Your task to perform on an android device: What's the weather going to be tomorrow? Image 0: 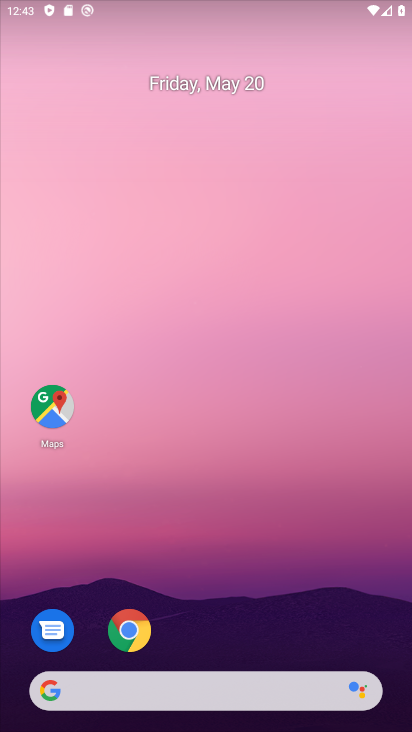
Step 0: press home button
Your task to perform on an android device: What's the weather going to be tomorrow? Image 1: 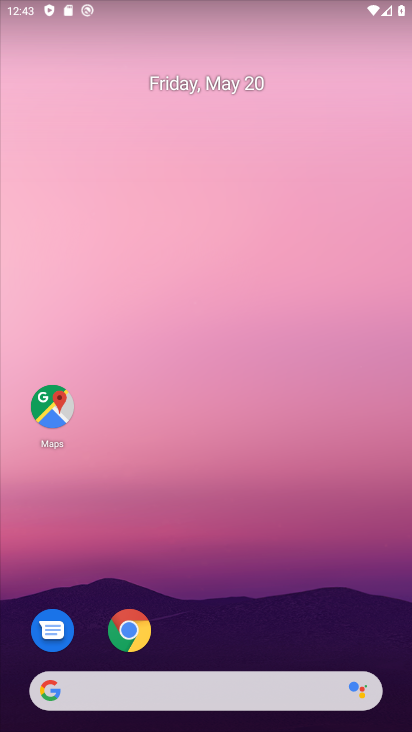
Step 1: drag from (253, 715) to (235, 258)
Your task to perform on an android device: What's the weather going to be tomorrow? Image 2: 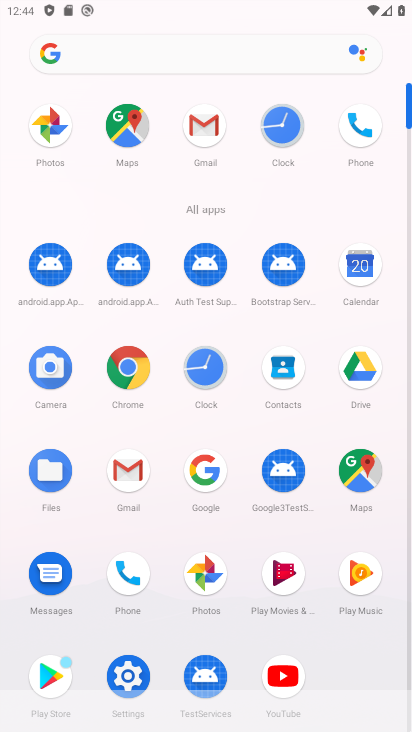
Step 2: click (170, 58)
Your task to perform on an android device: What's the weather going to be tomorrow? Image 3: 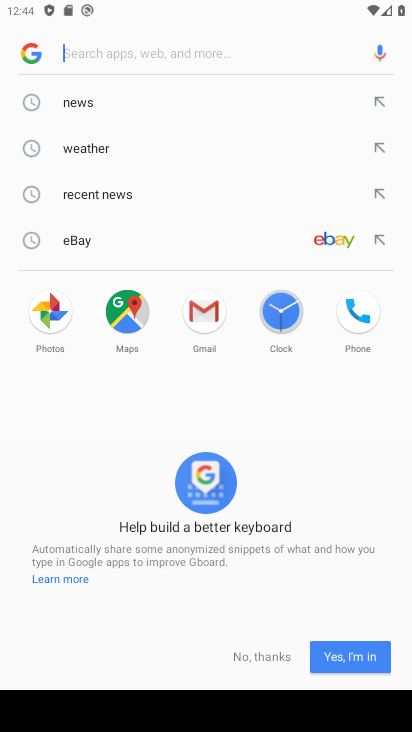
Step 3: click (258, 652)
Your task to perform on an android device: What's the weather going to be tomorrow? Image 4: 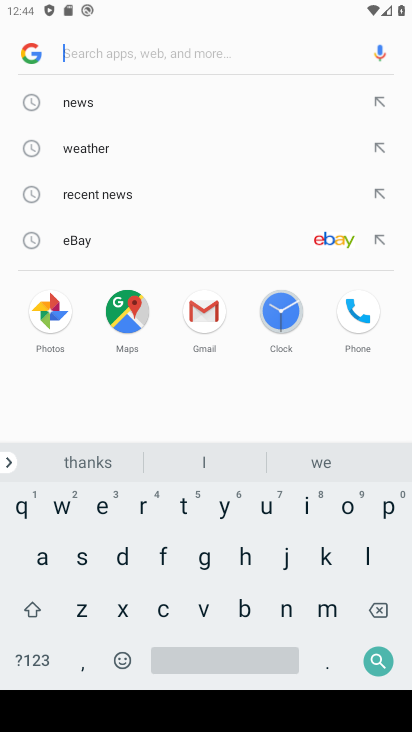
Step 4: click (99, 142)
Your task to perform on an android device: What's the weather going to be tomorrow? Image 5: 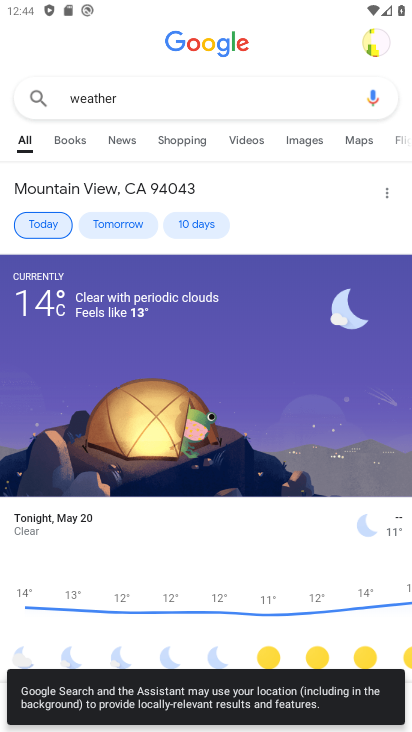
Step 5: click (104, 225)
Your task to perform on an android device: What's the weather going to be tomorrow? Image 6: 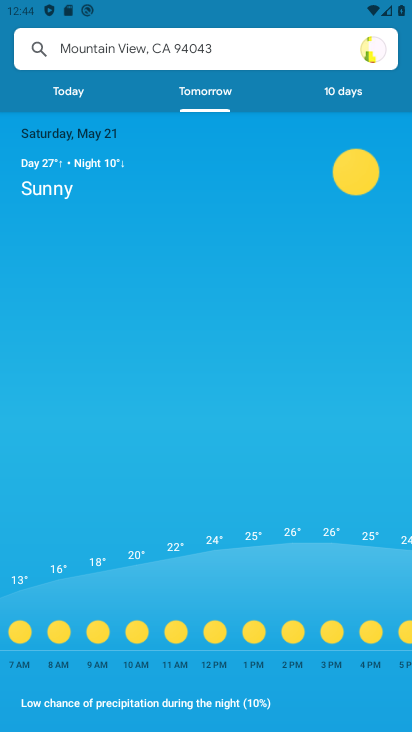
Step 6: task complete